Your task to perform on an android device: turn off javascript in the chrome app Image 0: 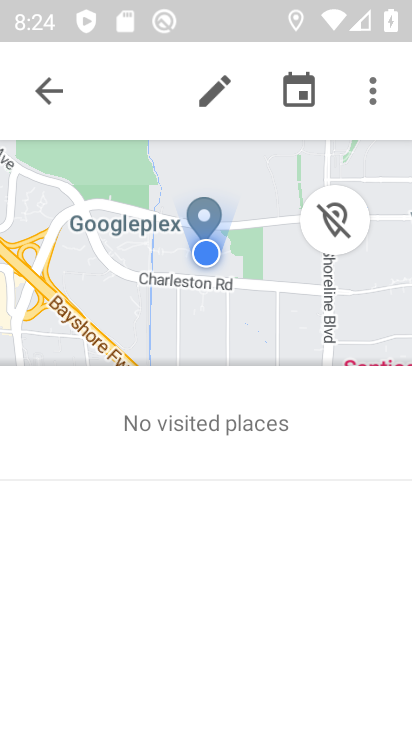
Step 0: press home button
Your task to perform on an android device: turn off javascript in the chrome app Image 1: 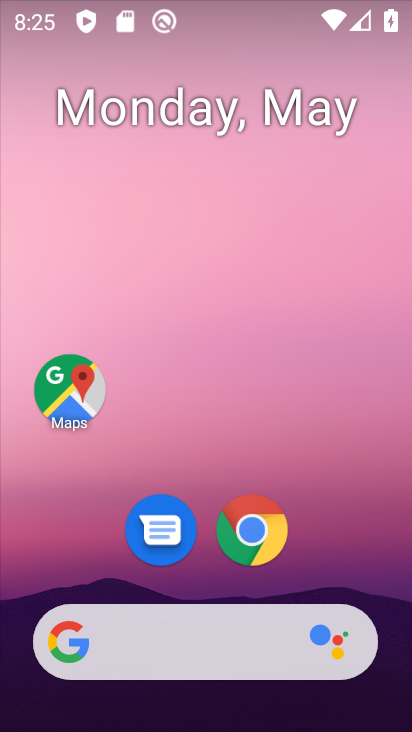
Step 1: click (258, 529)
Your task to perform on an android device: turn off javascript in the chrome app Image 2: 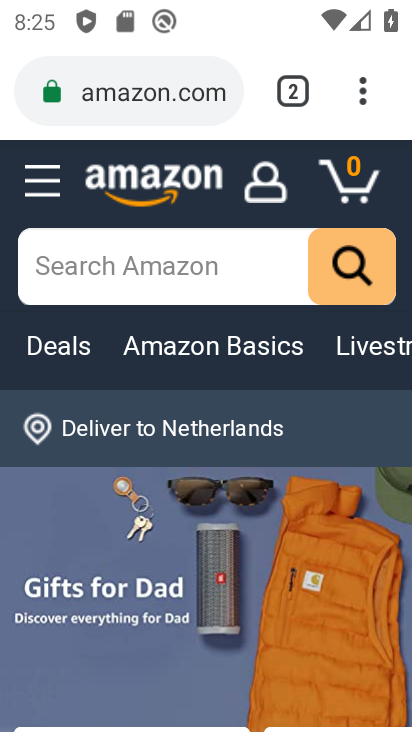
Step 2: click (369, 108)
Your task to perform on an android device: turn off javascript in the chrome app Image 3: 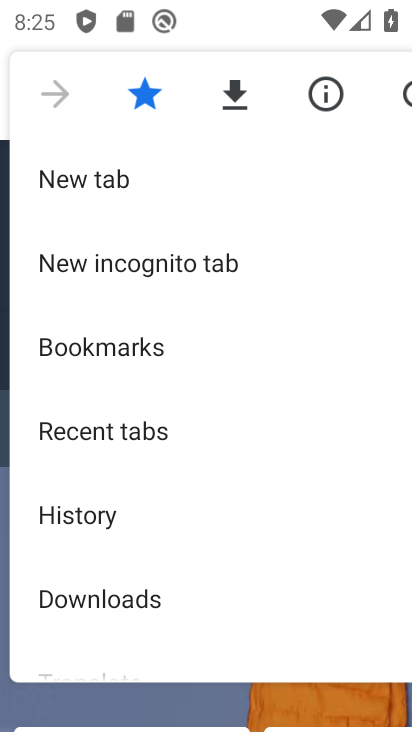
Step 3: drag from (137, 632) to (110, 78)
Your task to perform on an android device: turn off javascript in the chrome app Image 4: 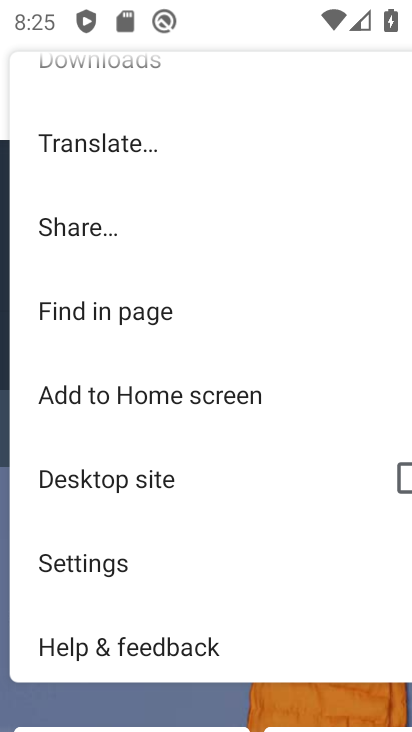
Step 4: click (75, 589)
Your task to perform on an android device: turn off javascript in the chrome app Image 5: 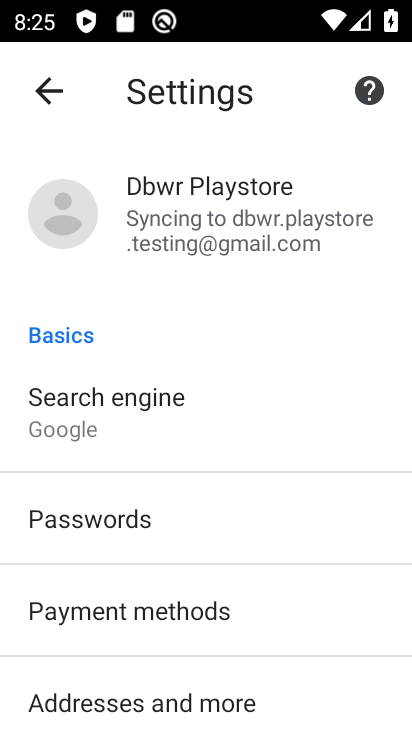
Step 5: drag from (167, 672) to (139, 113)
Your task to perform on an android device: turn off javascript in the chrome app Image 6: 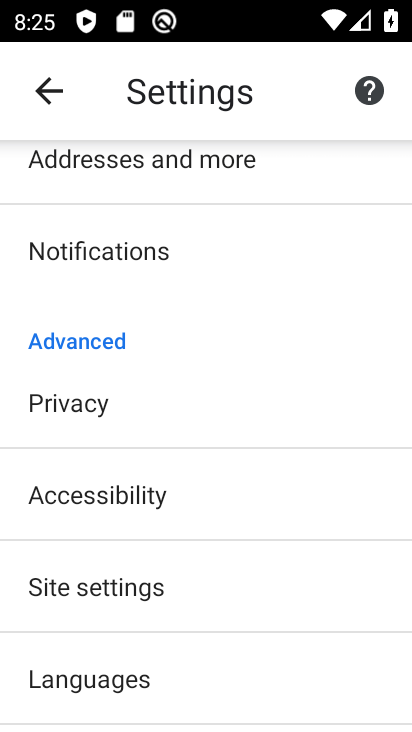
Step 6: click (119, 585)
Your task to perform on an android device: turn off javascript in the chrome app Image 7: 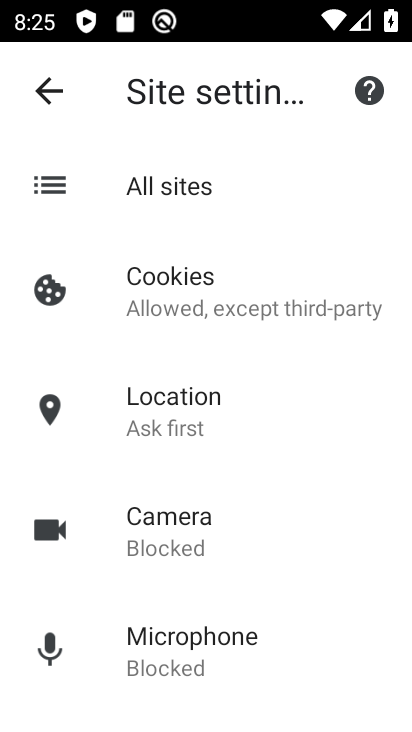
Step 7: drag from (243, 703) to (171, 181)
Your task to perform on an android device: turn off javascript in the chrome app Image 8: 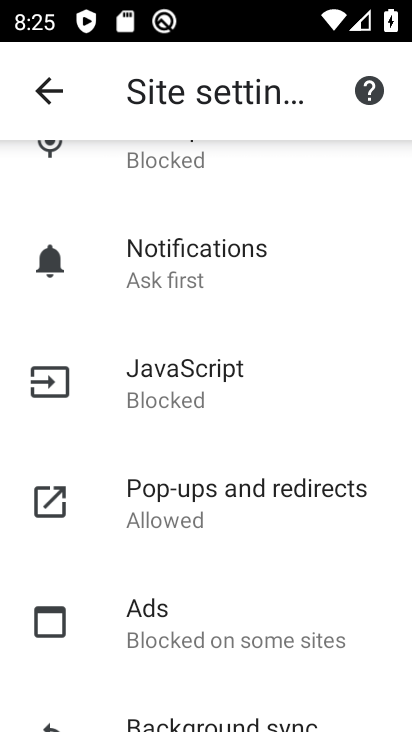
Step 8: click (196, 388)
Your task to perform on an android device: turn off javascript in the chrome app Image 9: 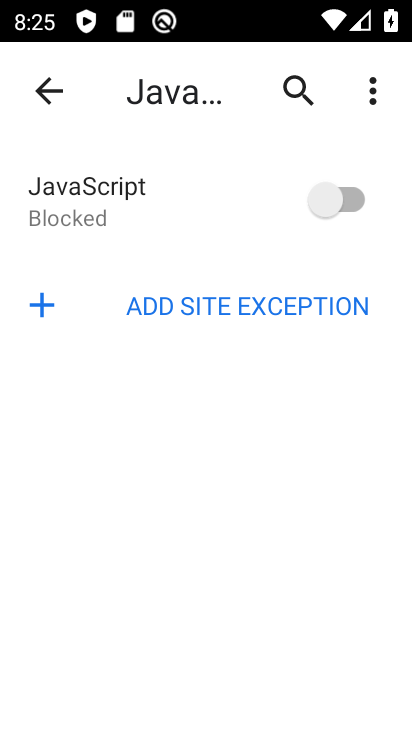
Step 9: task complete